Your task to perform on an android device: change notifications settings Image 0: 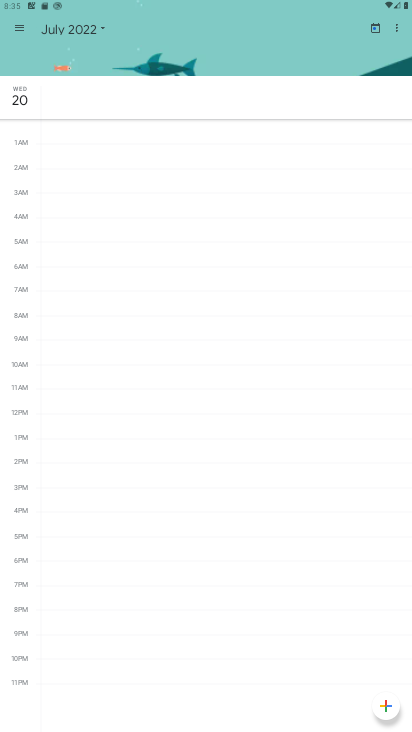
Step 0: press home button
Your task to perform on an android device: change notifications settings Image 1: 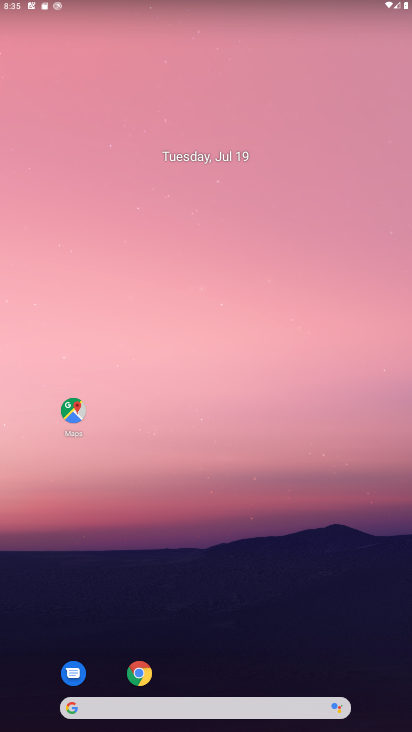
Step 1: drag from (351, 671) to (326, 120)
Your task to perform on an android device: change notifications settings Image 2: 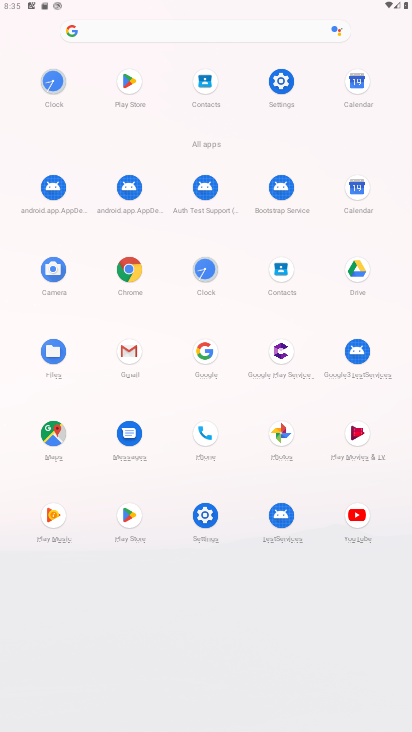
Step 2: click (205, 516)
Your task to perform on an android device: change notifications settings Image 3: 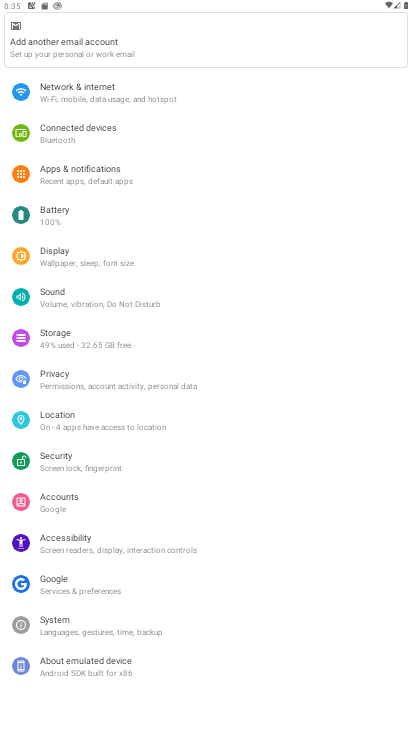
Step 3: click (69, 166)
Your task to perform on an android device: change notifications settings Image 4: 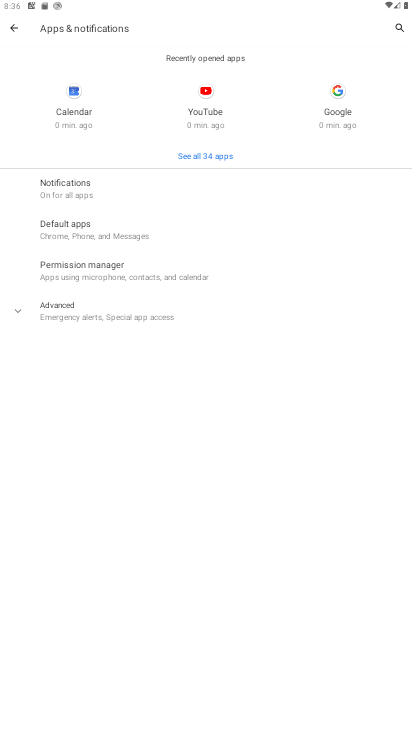
Step 4: click (74, 190)
Your task to perform on an android device: change notifications settings Image 5: 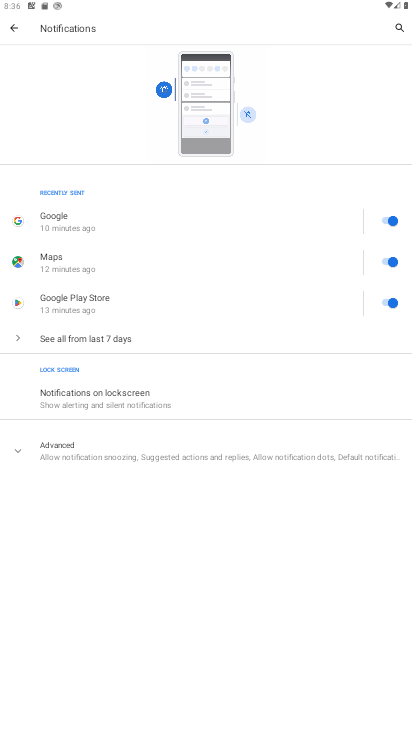
Step 5: click (14, 454)
Your task to perform on an android device: change notifications settings Image 6: 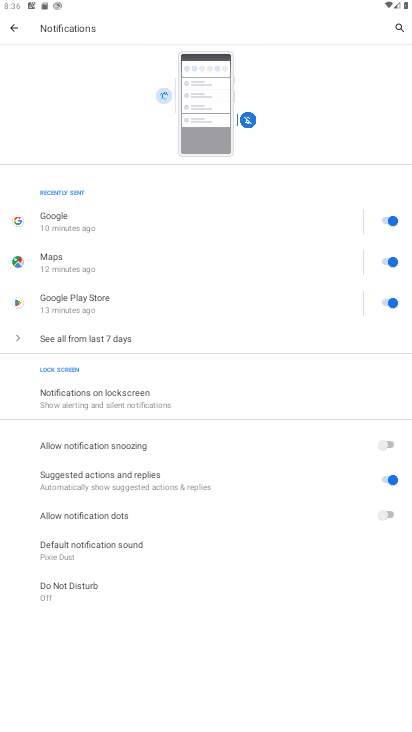
Step 6: task complete